Your task to perform on an android device: Open privacy settings Image 0: 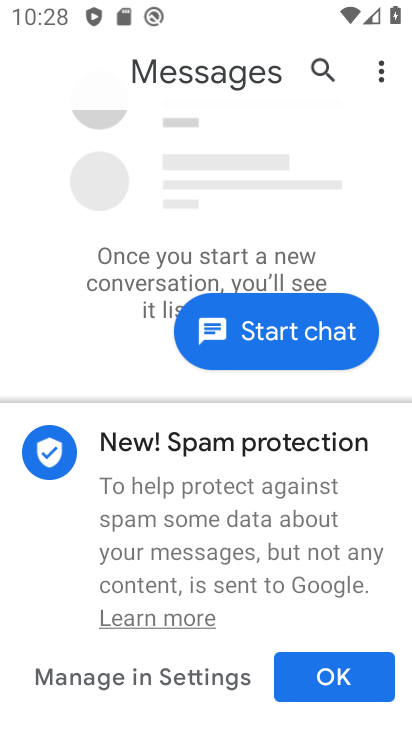
Step 0: press home button
Your task to perform on an android device: Open privacy settings Image 1: 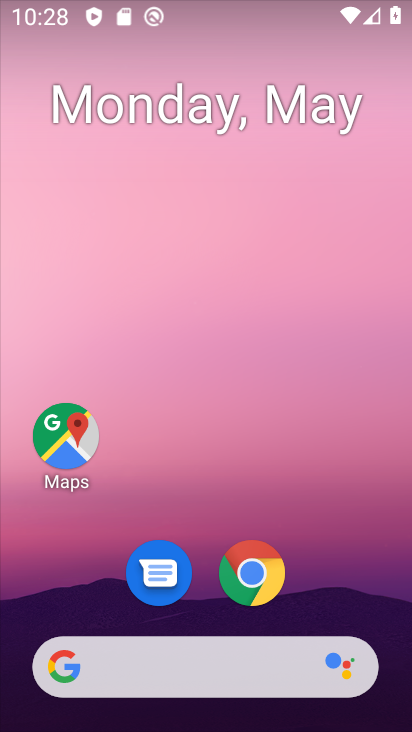
Step 1: drag from (343, 513) to (233, 52)
Your task to perform on an android device: Open privacy settings Image 2: 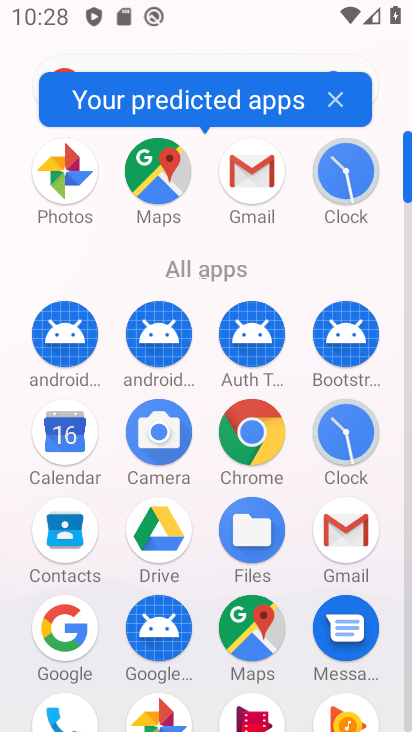
Step 2: drag from (207, 520) to (213, 123)
Your task to perform on an android device: Open privacy settings Image 3: 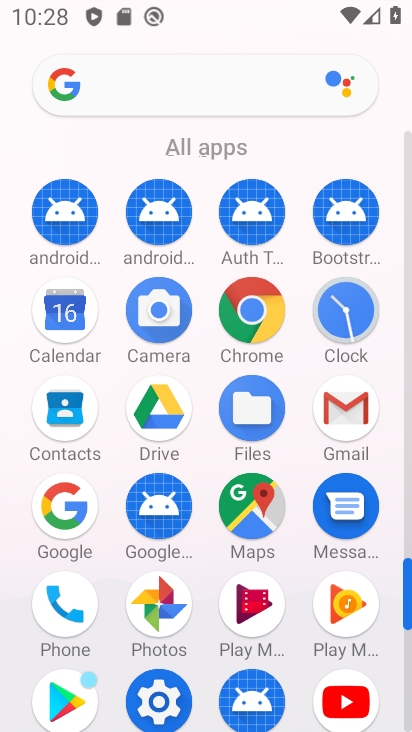
Step 3: click (173, 697)
Your task to perform on an android device: Open privacy settings Image 4: 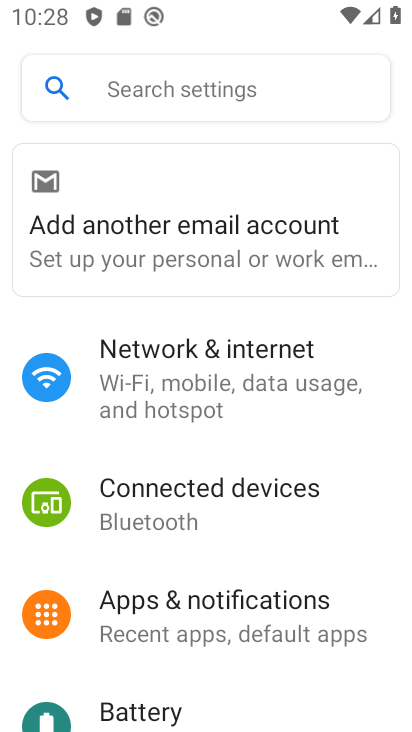
Step 4: drag from (239, 624) to (243, 164)
Your task to perform on an android device: Open privacy settings Image 5: 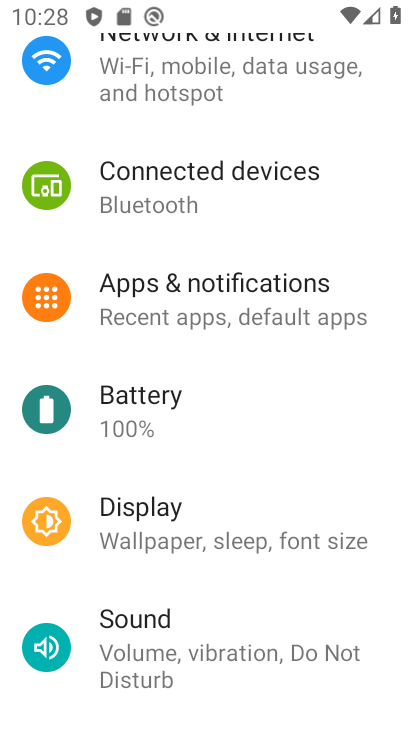
Step 5: drag from (229, 598) to (212, 186)
Your task to perform on an android device: Open privacy settings Image 6: 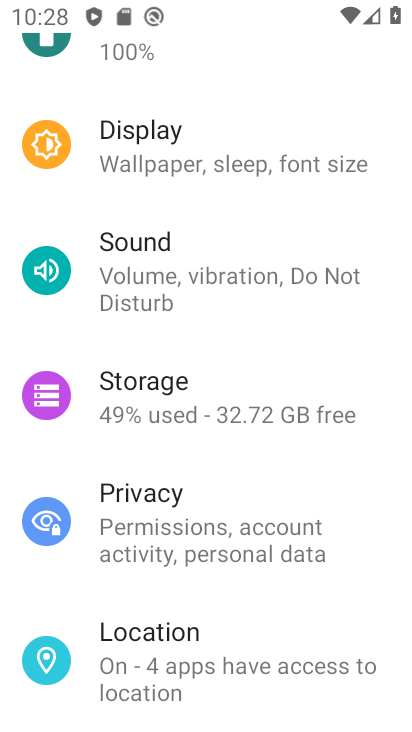
Step 6: drag from (215, 611) to (213, 203)
Your task to perform on an android device: Open privacy settings Image 7: 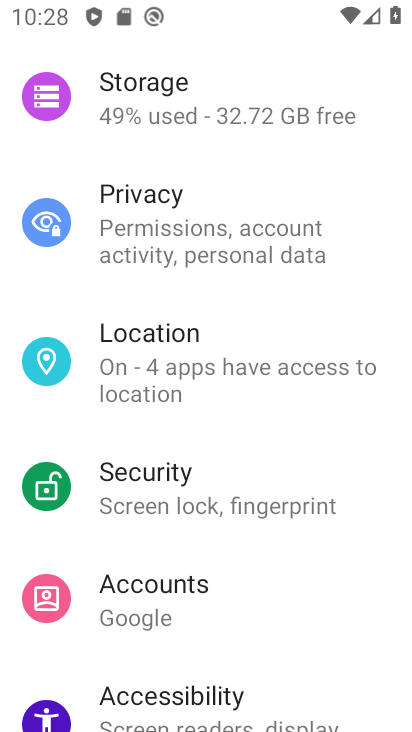
Step 7: drag from (187, 612) to (161, 155)
Your task to perform on an android device: Open privacy settings Image 8: 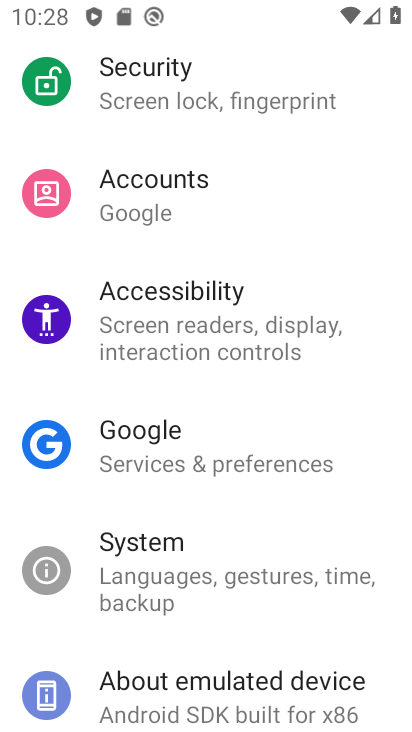
Step 8: drag from (182, 585) to (204, 171)
Your task to perform on an android device: Open privacy settings Image 9: 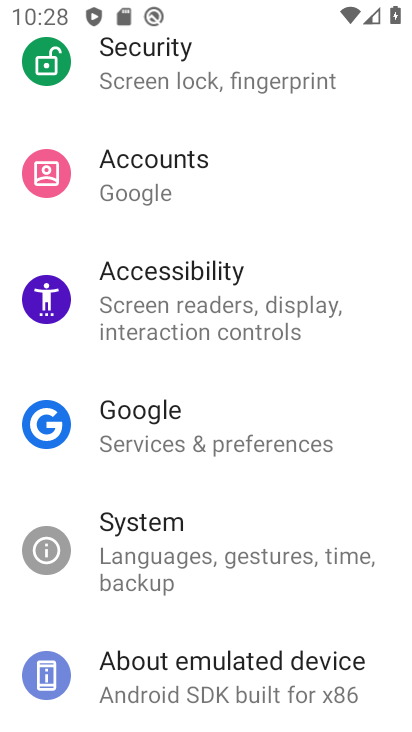
Step 9: drag from (204, 143) to (151, 722)
Your task to perform on an android device: Open privacy settings Image 10: 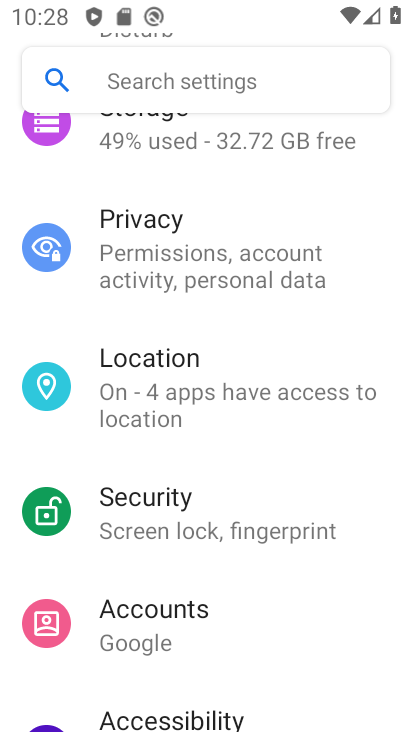
Step 10: drag from (188, 152) to (136, 729)
Your task to perform on an android device: Open privacy settings Image 11: 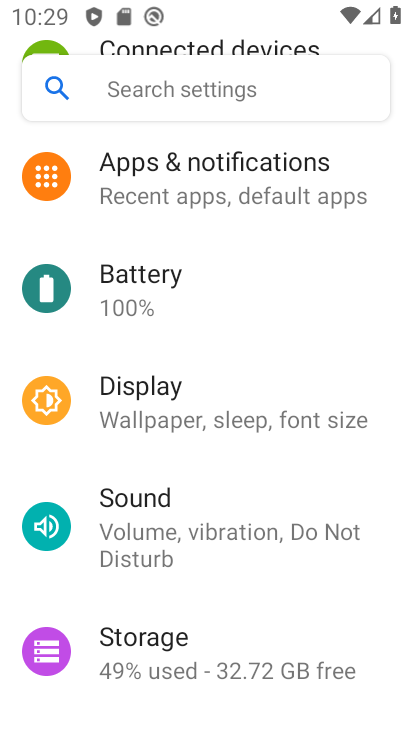
Step 11: drag from (189, 219) to (185, 672)
Your task to perform on an android device: Open privacy settings Image 12: 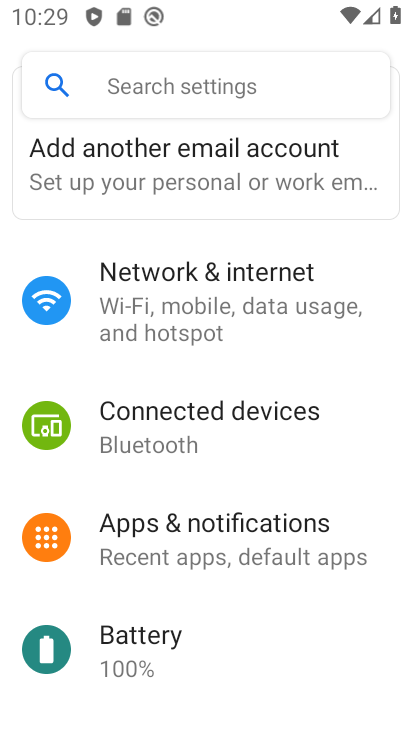
Step 12: drag from (165, 561) to (177, 109)
Your task to perform on an android device: Open privacy settings Image 13: 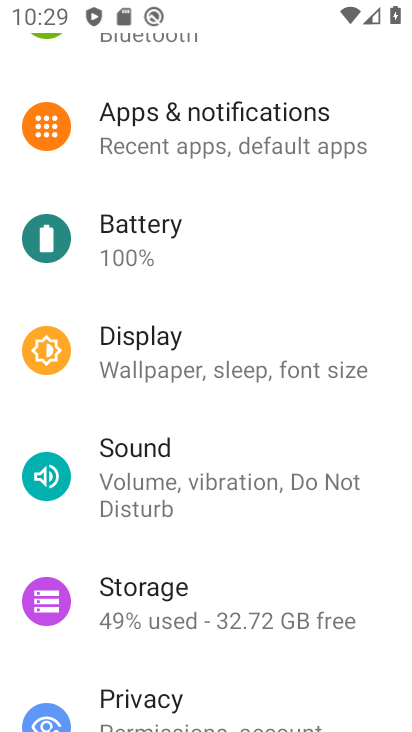
Step 13: drag from (200, 511) to (179, 307)
Your task to perform on an android device: Open privacy settings Image 14: 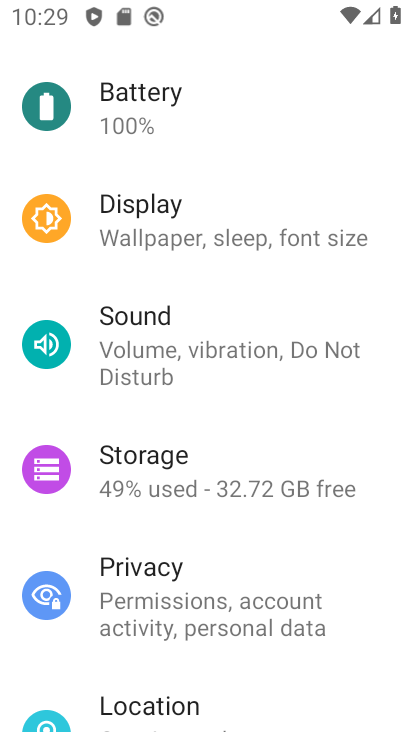
Step 14: click (166, 574)
Your task to perform on an android device: Open privacy settings Image 15: 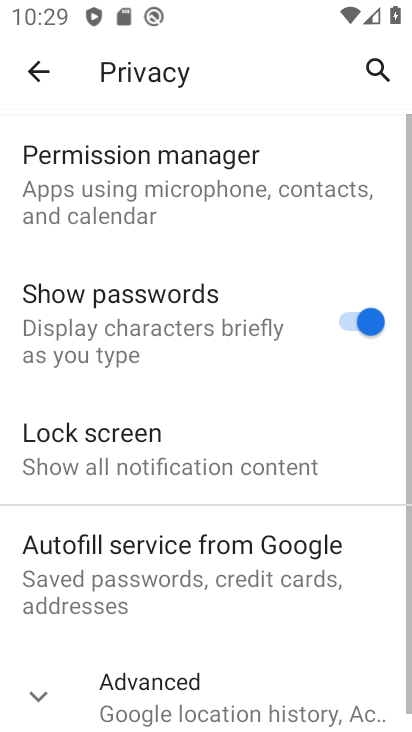
Step 15: task complete